Your task to perform on an android device: change alarm snooze length Image 0: 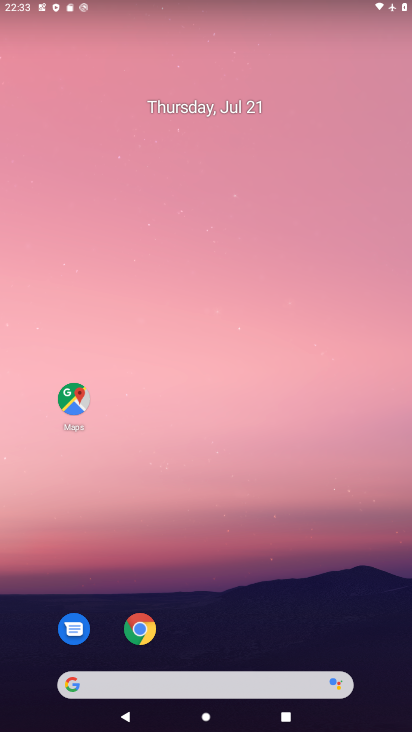
Step 0: press home button
Your task to perform on an android device: change alarm snooze length Image 1: 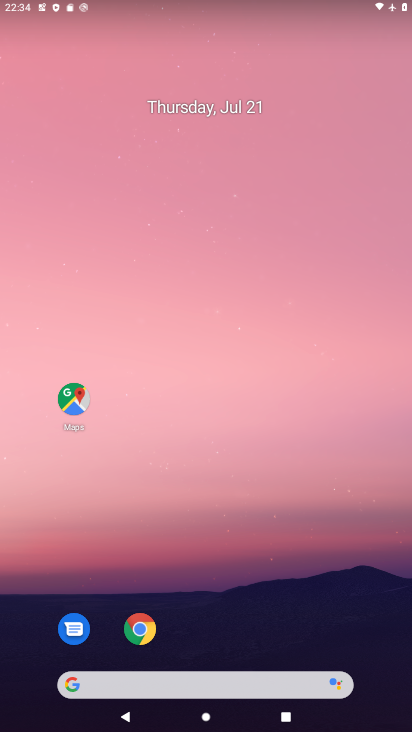
Step 1: drag from (221, 650) to (232, 165)
Your task to perform on an android device: change alarm snooze length Image 2: 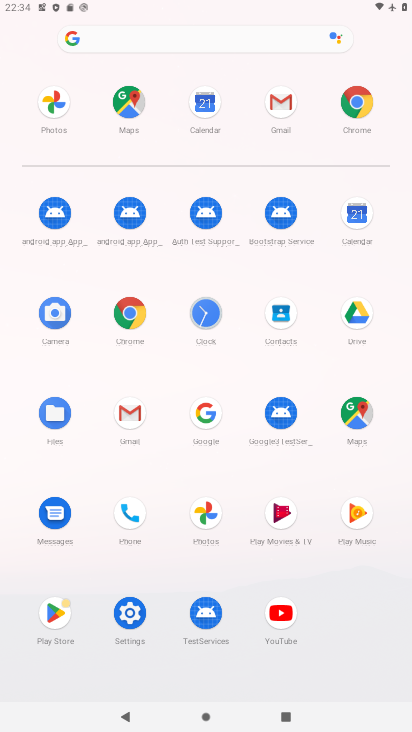
Step 2: click (205, 319)
Your task to perform on an android device: change alarm snooze length Image 3: 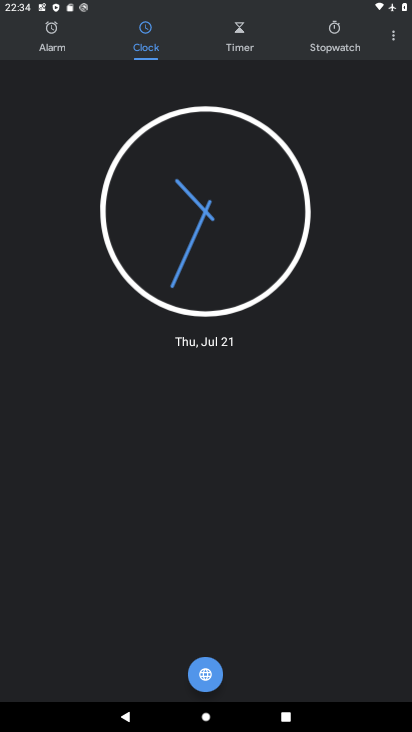
Step 3: click (396, 43)
Your task to perform on an android device: change alarm snooze length Image 4: 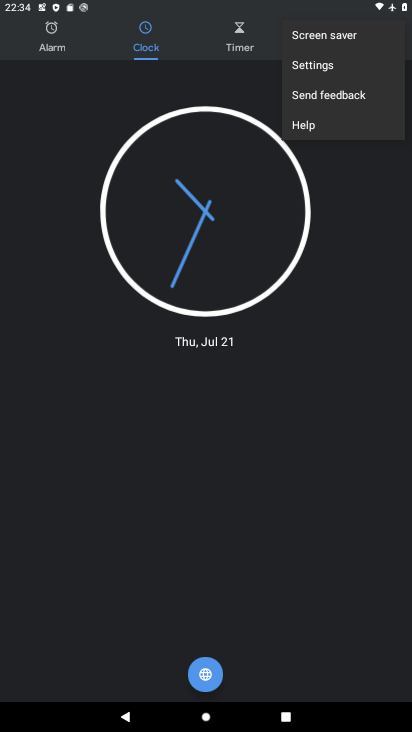
Step 4: click (319, 71)
Your task to perform on an android device: change alarm snooze length Image 5: 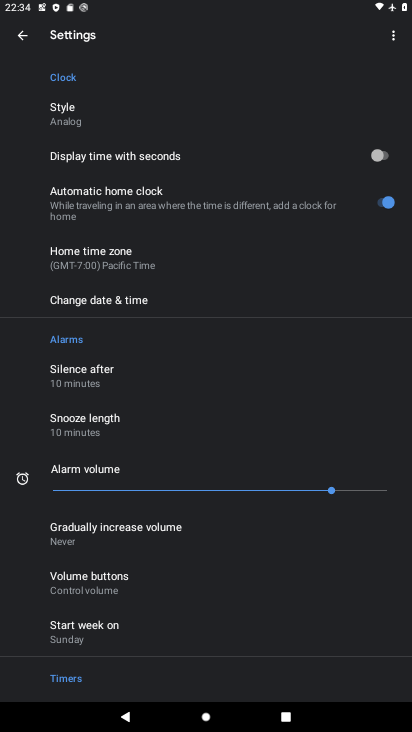
Step 5: click (79, 427)
Your task to perform on an android device: change alarm snooze length Image 6: 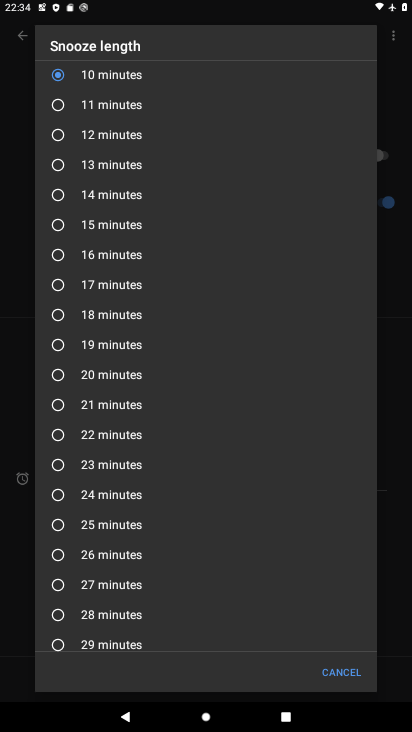
Step 6: click (60, 259)
Your task to perform on an android device: change alarm snooze length Image 7: 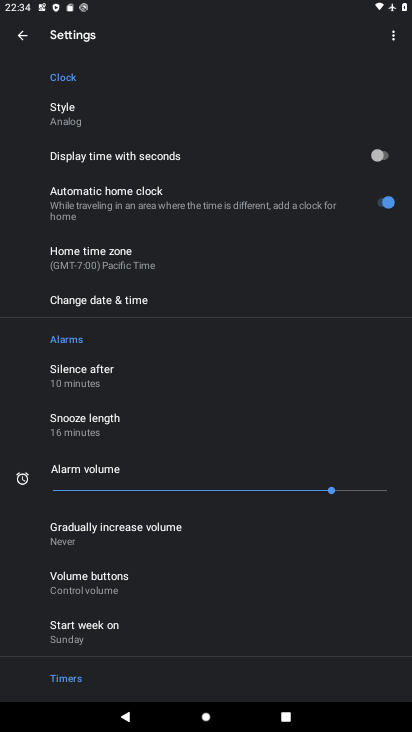
Step 7: task complete